Your task to perform on an android device: toggle wifi Image 0: 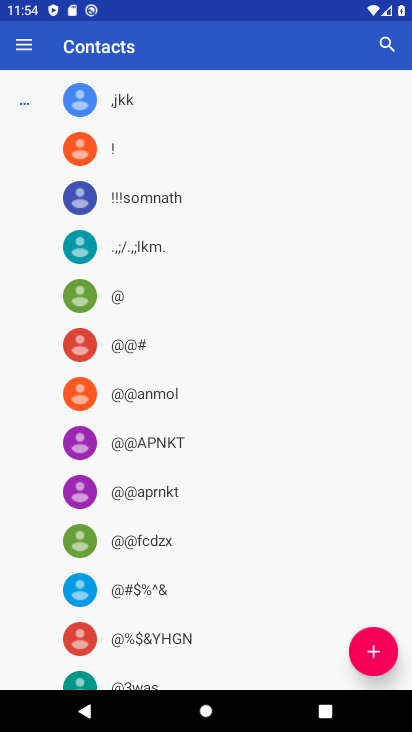
Step 0: press home button
Your task to perform on an android device: toggle wifi Image 1: 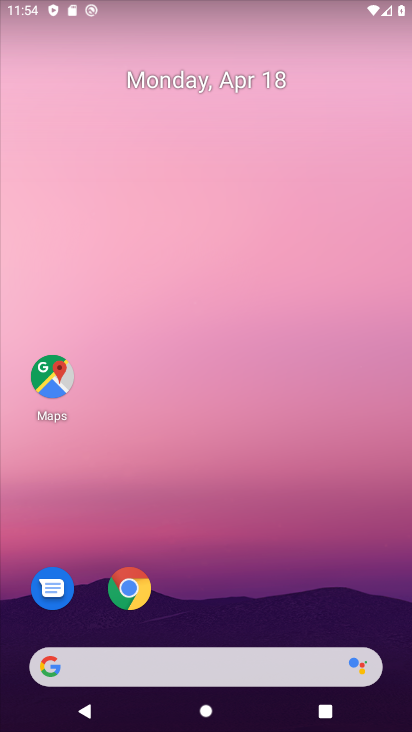
Step 1: drag from (352, 581) to (360, 390)
Your task to perform on an android device: toggle wifi Image 2: 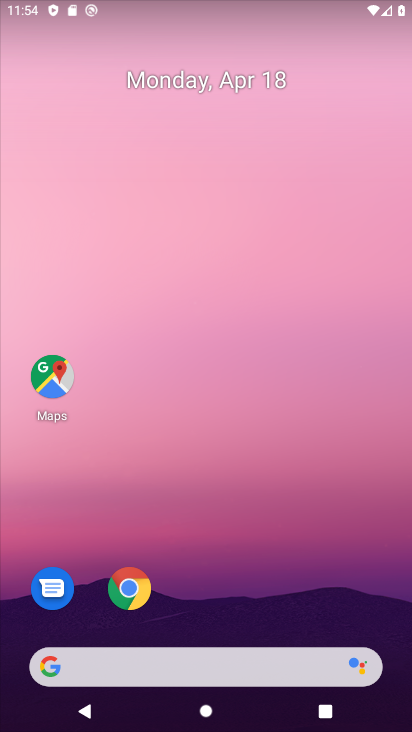
Step 2: drag from (358, 576) to (371, 148)
Your task to perform on an android device: toggle wifi Image 3: 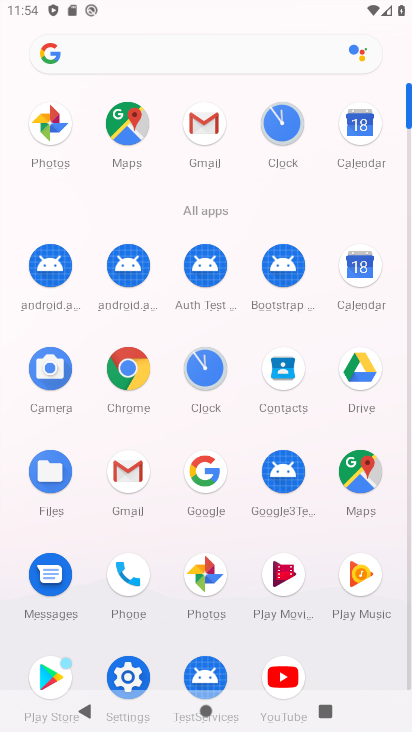
Step 3: click (410, 671)
Your task to perform on an android device: toggle wifi Image 4: 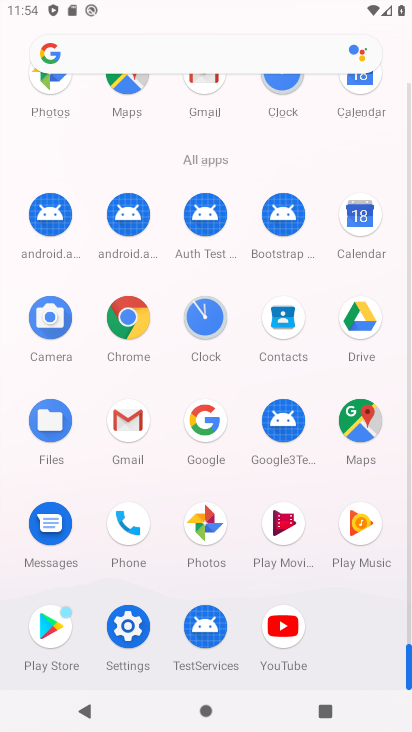
Step 4: click (133, 626)
Your task to perform on an android device: toggle wifi Image 5: 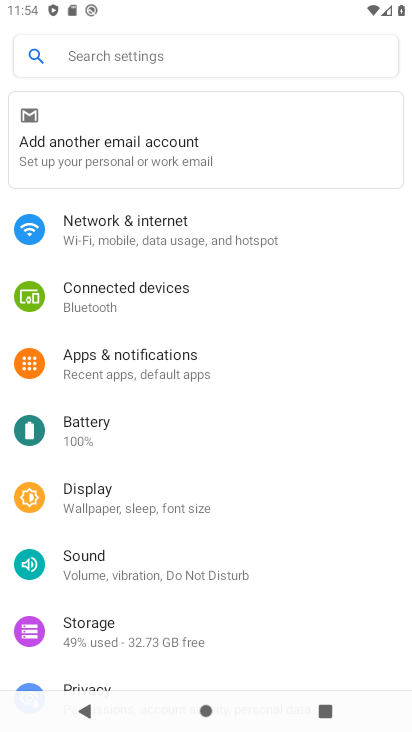
Step 5: click (97, 223)
Your task to perform on an android device: toggle wifi Image 6: 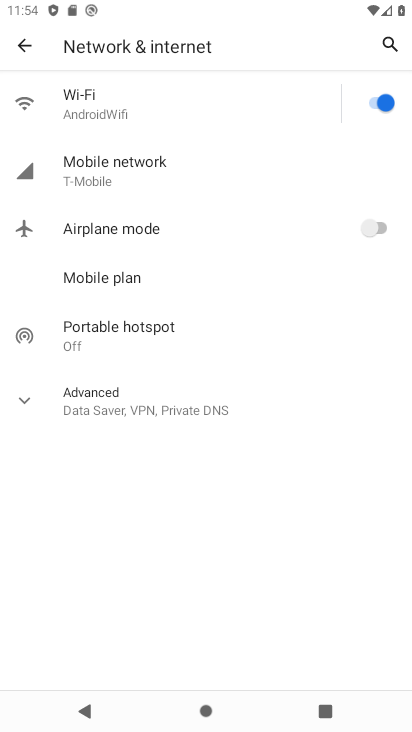
Step 6: click (369, 102)
Your task to perform on an android device: toggle wifi Image 7: 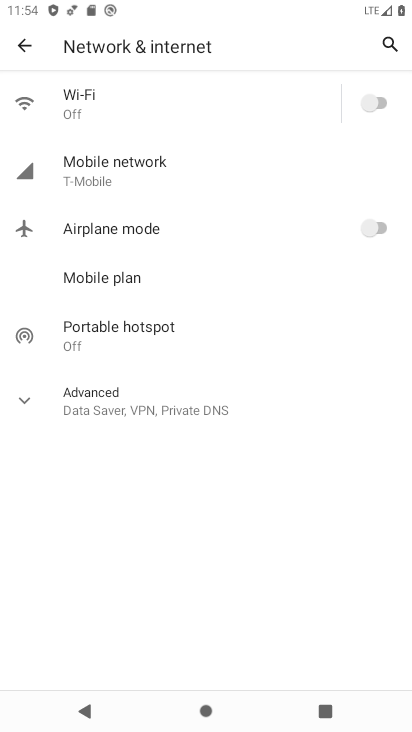
Step 7: task complete